Your task to perform on an android device: Open Google Image 0: 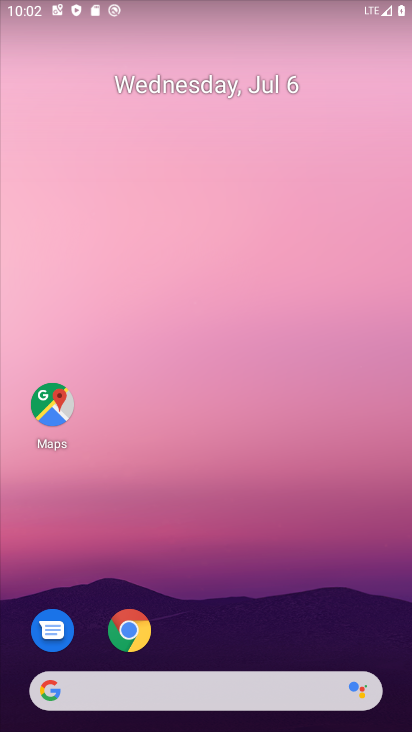
Step 0: click (130, 630)
Your task to perform on an android device: Open Google Image 1: 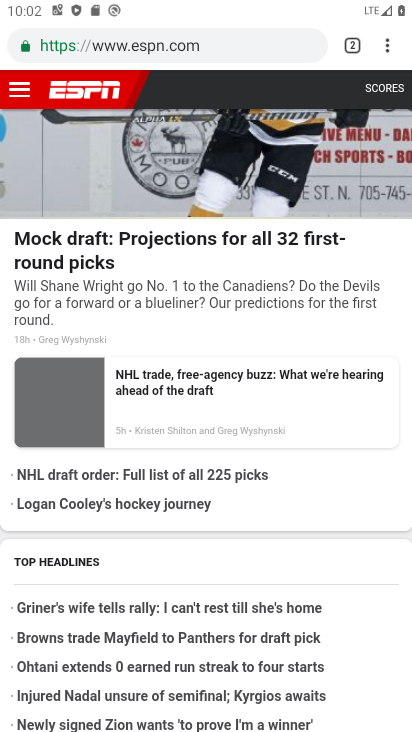
Step 1: task complete